Your task to perform on an android device: Open Chrome and go to settings Image 0: 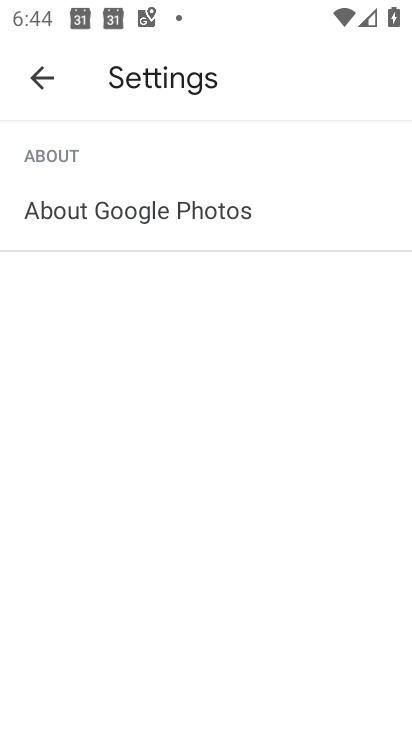
Step 0: press home button
Your task to perform on an android device: Open Chrome and go to settings Image 1: 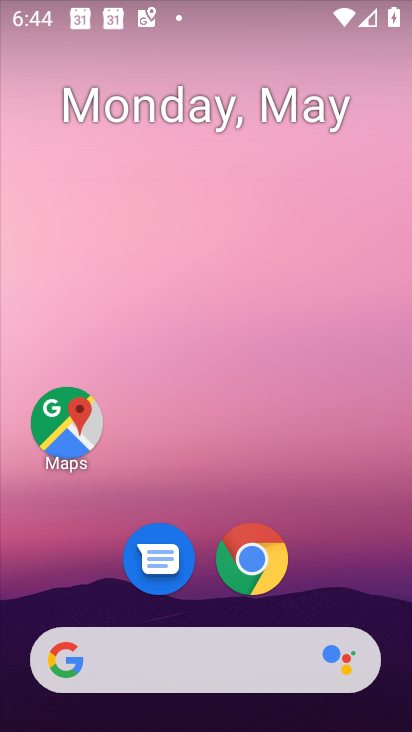
Step 1: drag from (390, 637) to (279, 88)
Your task to perform on an android device: Open Chrome and go to settings Image 2: 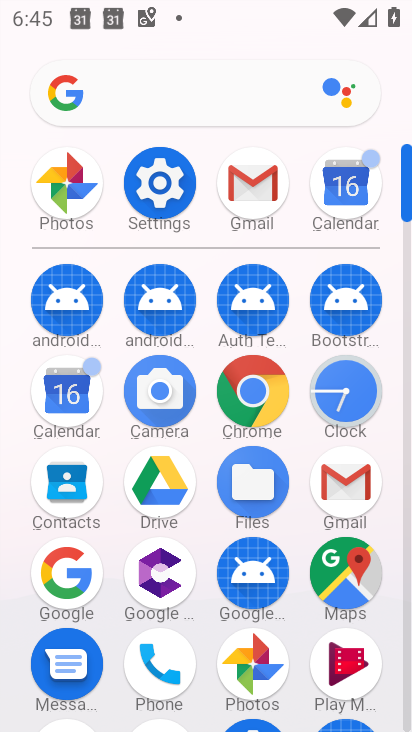
Step 2: click (273, 390)
Your task to perform on an android device: Open Chrome and go to settings Image 3: 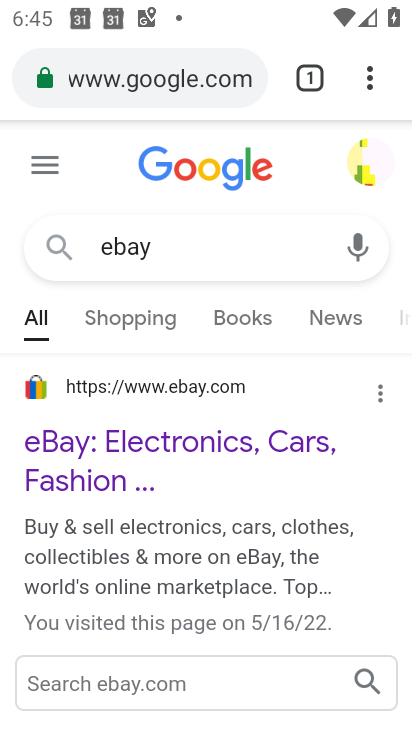
Step 3: press back button
Your task to perform on an android device: Open Chrome and go to settings Image 4: 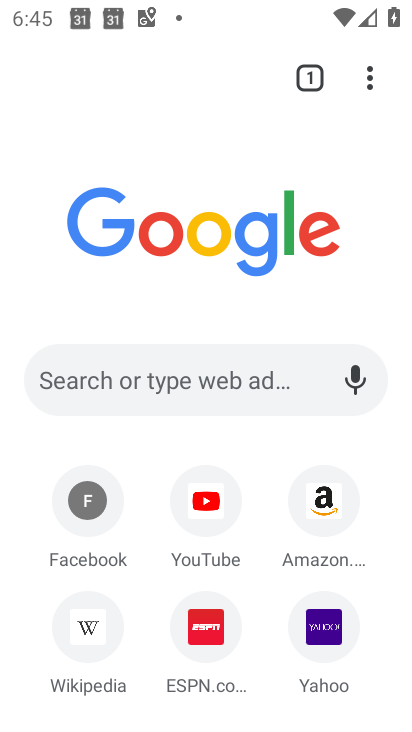
Step 4: click (365, 75)
Your task to perform on an android device: Open Chrome and go to settings Image 5: 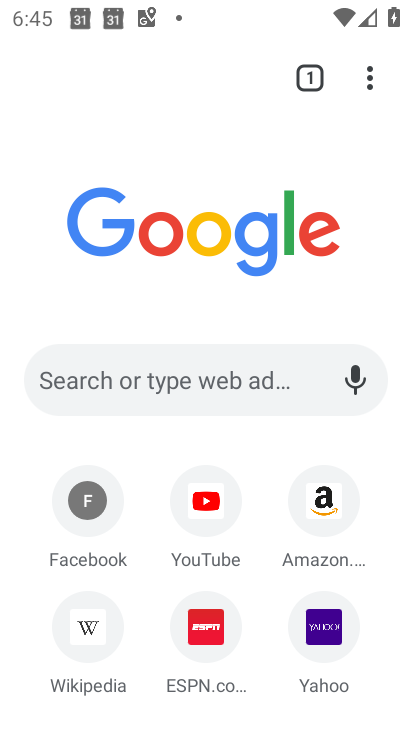
Step 5: click (365, 75)
Your task to perform on an android device: Open Chrome and go to settings Image 6: 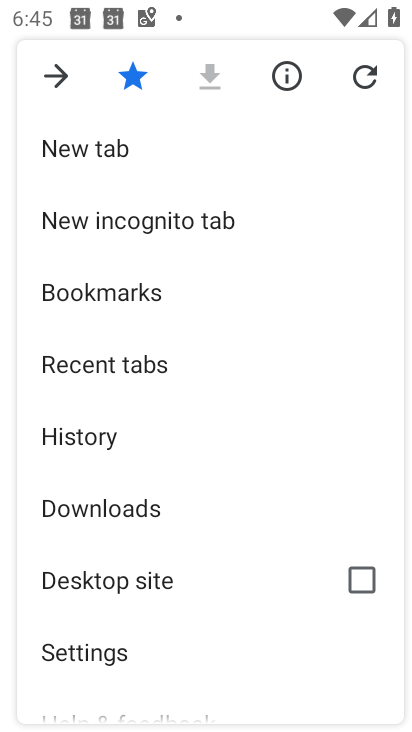
Step 6: click (88, 649)
Your task to perform on an android device: Open Chrome and go to settings Image 7: 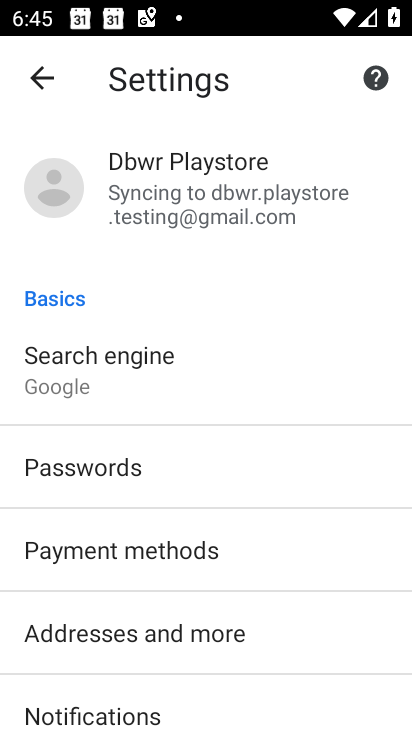
Step 7: task complete